Your task to perform on an android device: delete a single message in the gmail app Image 0: 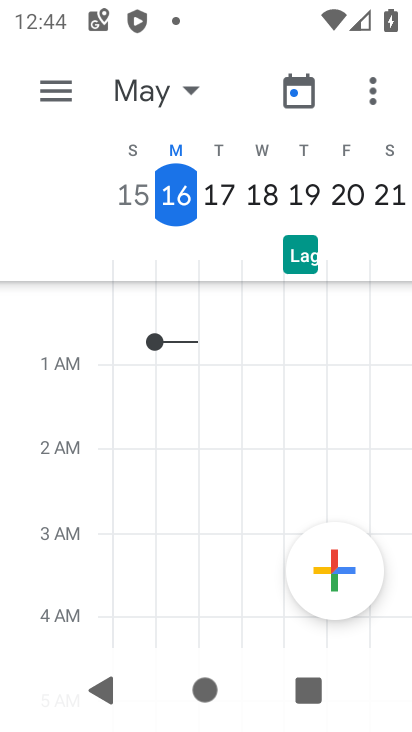
Step 0: press home button
Your task to perform on an android device: delete a single message in the gmail app Image 1: 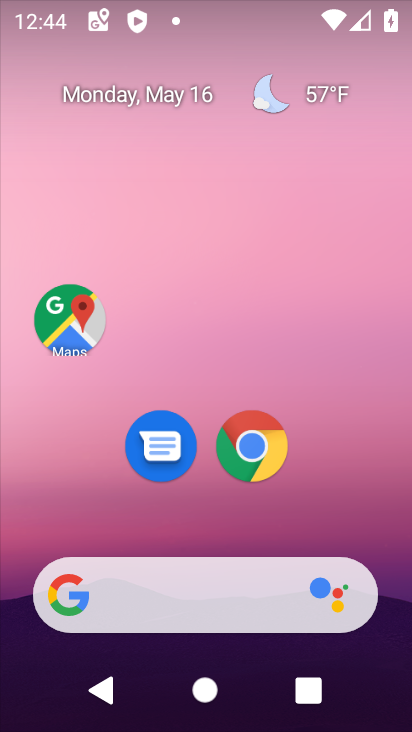
Step 1: task complete